Your task to perform on an android device: Go to Wikipedia Image 0: 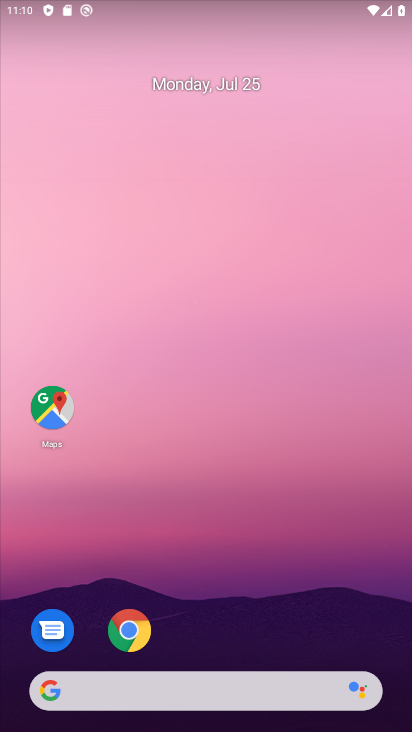
Step 0: click (117, 640)
Your task to perform on an android device: Go to Wikipedia Image 1: 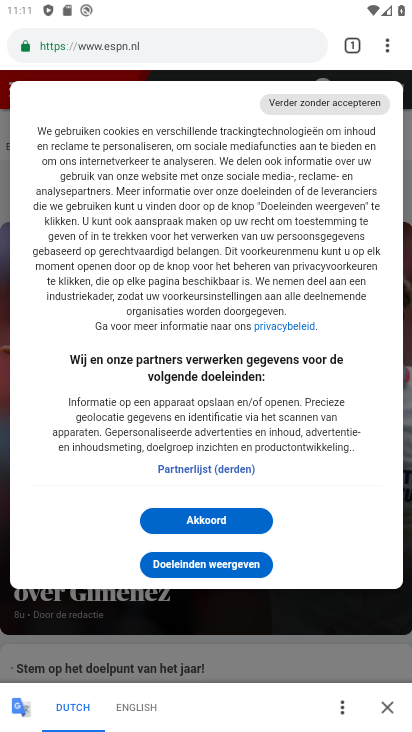
Step 1: click (206, 49)
Your task to perform on an android device: Go to Wikipedia Image 2: 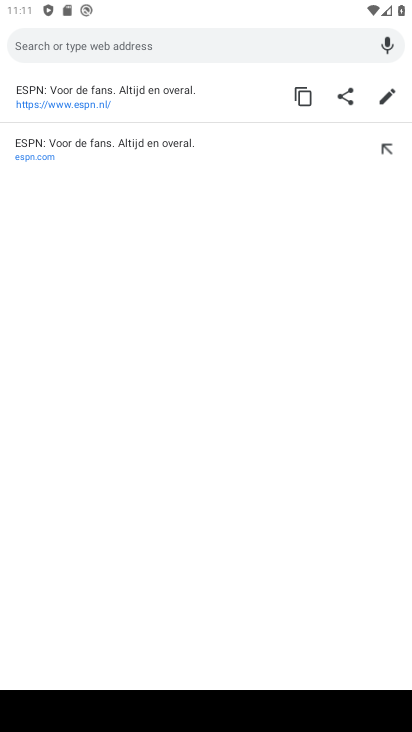
Step 2: type "wikipedia"
Your task to perform on an android device: Go to Wikipedia Image 3: 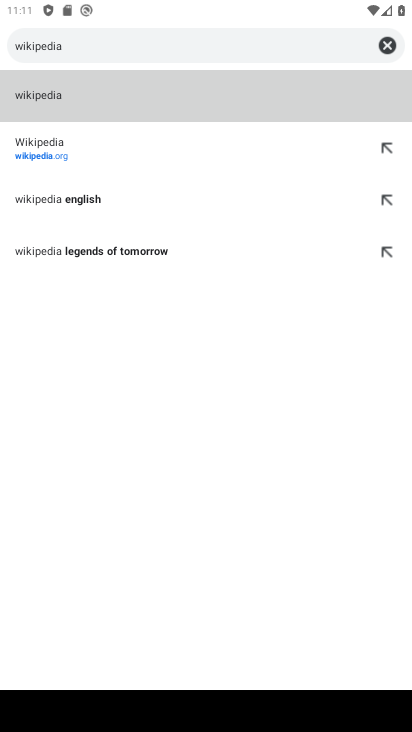
Step 3: click (75, 91)
Your task to perform on an android device: Go to Wikipedia Image 4: 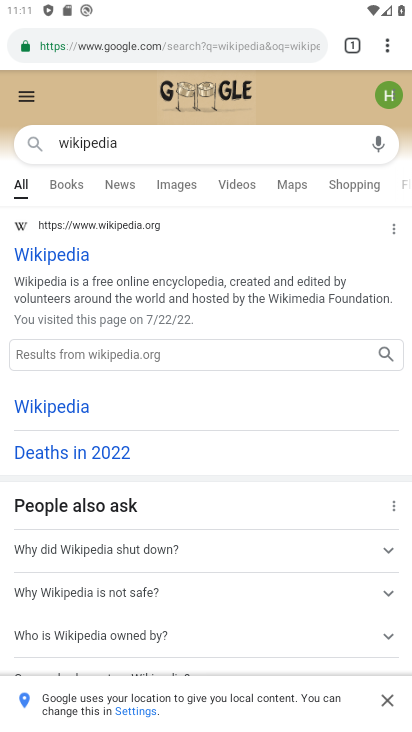
Step 4: click (27, 260)
Your task to perform on an android device: Go to Wikipedia Image 5: 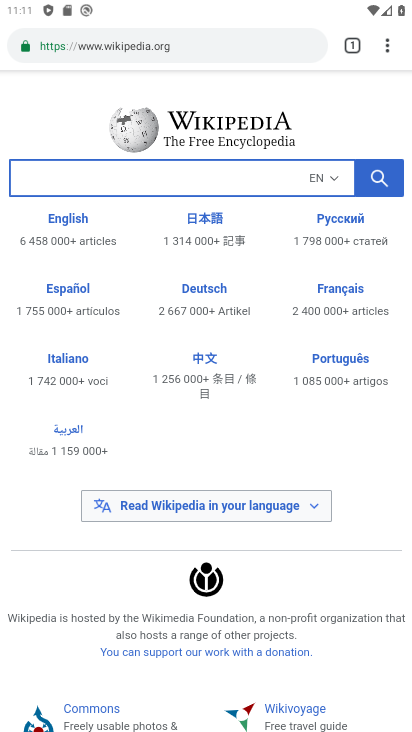
Step 5: task complete